Your task to perform on an android device: Set the phone to "Do not disturb". Image 0: 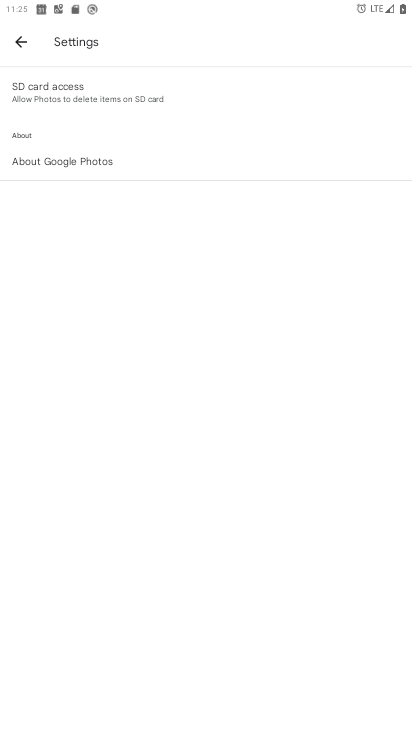
Step 0: press home button
Your task to perform on an android device: Set the phone to "Do not disturb". Image 1: 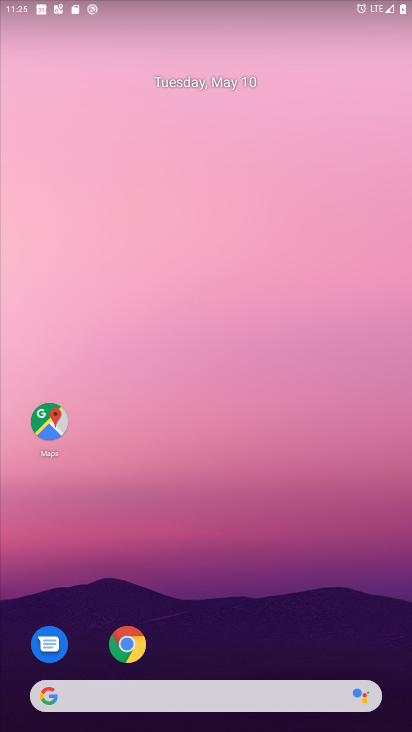
Step 1: drag from (170, 641) to (143, 297)
Your task to perform on an android device: Set the phone to "Do not disturb". Image 2: 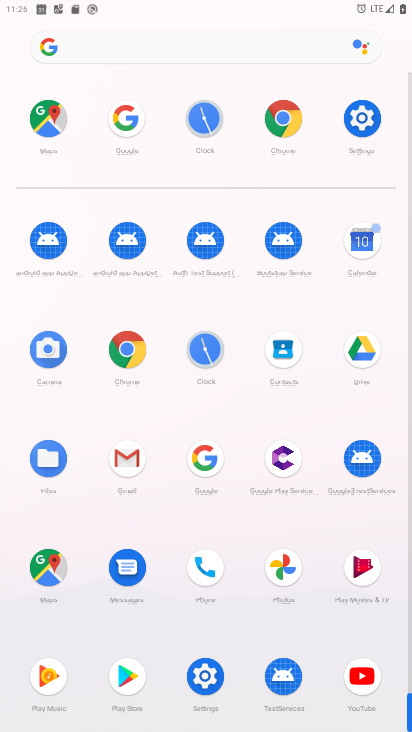
Step 2: click (369, 117)
Your task to perform on an android device: Set the phone to "Do not disturb". Image 3: 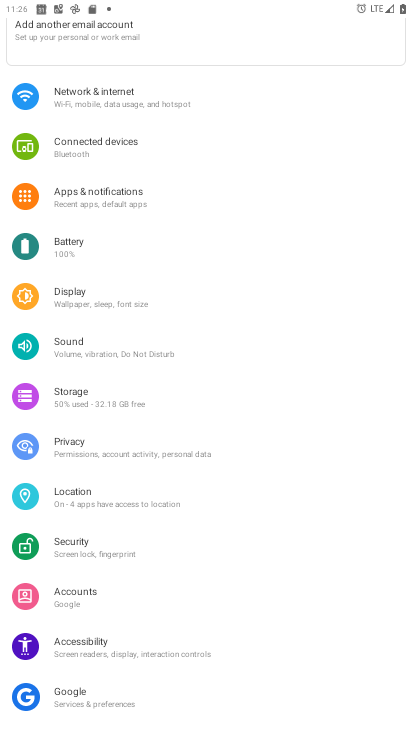
Step 3: drag from (157, 540) to (147, 430)
Your task to perform on an android device: Set the phone to "Do not disturb". Image 4: 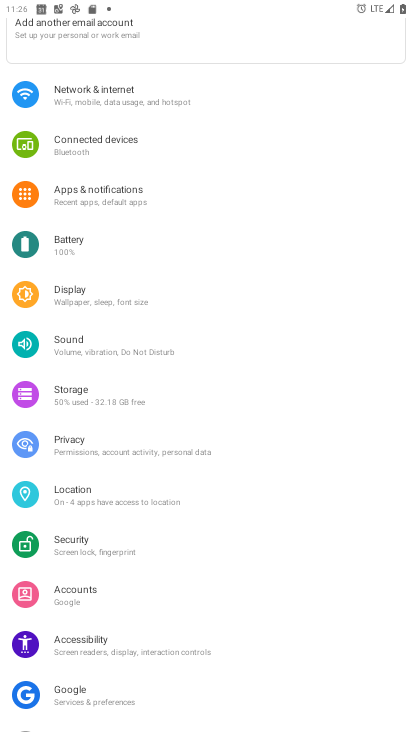
Step 4: drag from (278, 14) to (234, 383)
Your task to perform on an android device: Set the phone to "Do not disturb". Image 5: 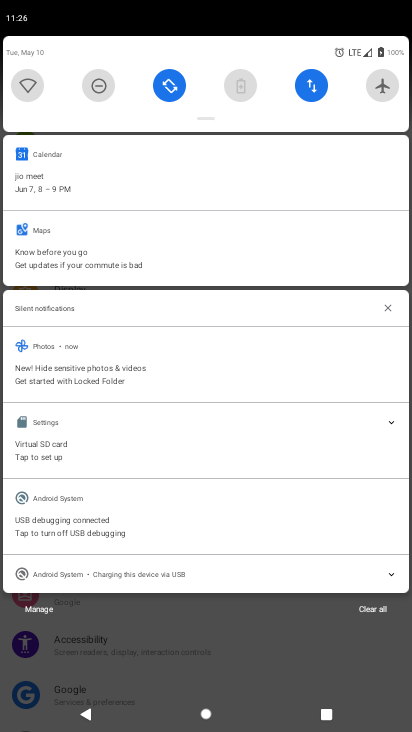
Step 5: drag from (201, 75) to (148, 729)
Your task to perform on an android device: Set the phone to "Do not disturb". Image 6: 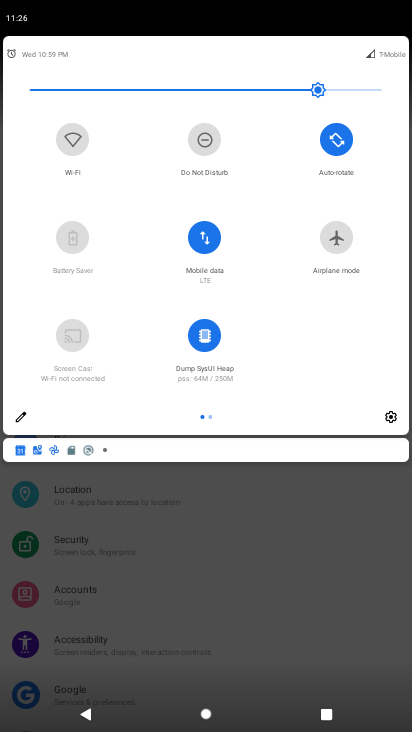
Step 6: click (204, 150)
Your task to perform on an android device: Set the phone to "Do not disturb". Image 7: 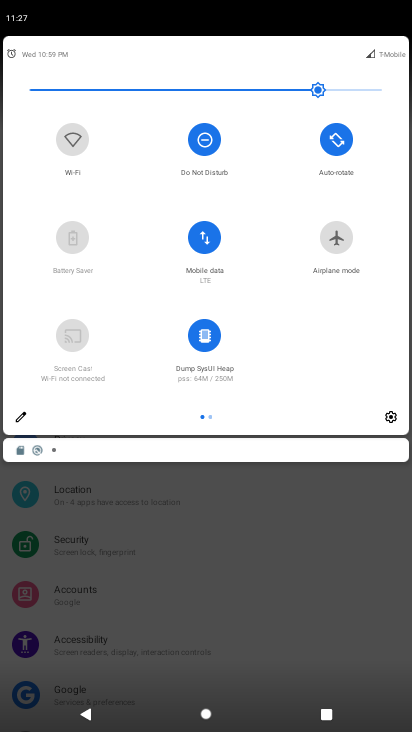
Step 7: task complete